Your task to perform on an android device: toggle show notifications on the lock screen Image 0: 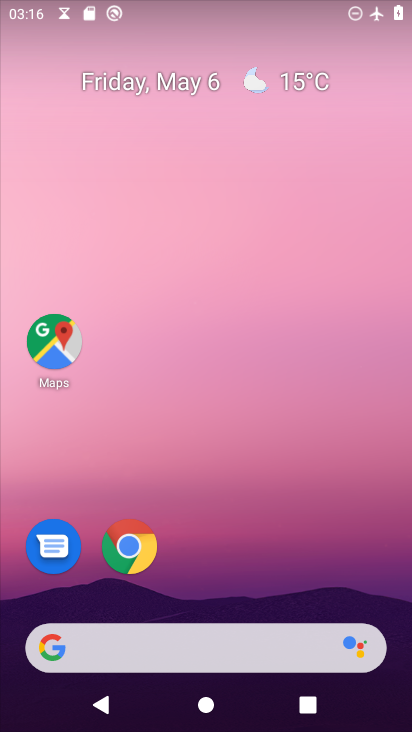
Step 0: drag from (229, 582) to (212, 127)
Your task to perform on an android device: toggle show notifications on the lock screen Image 1: 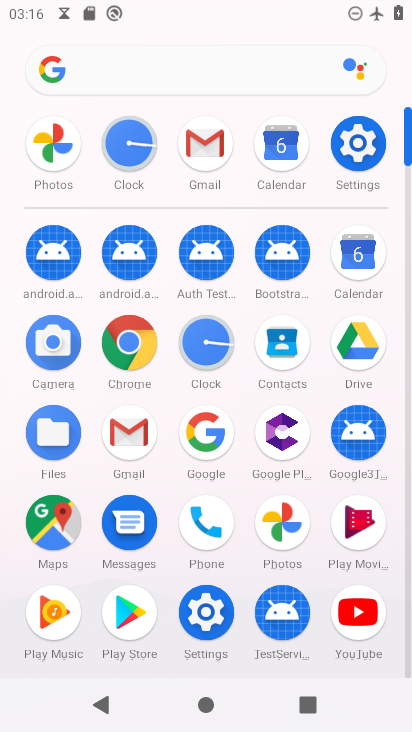
Step 1: click (357, 160)
Your task to perform on an android device: toggle show notifications on the lock screen Image 2: 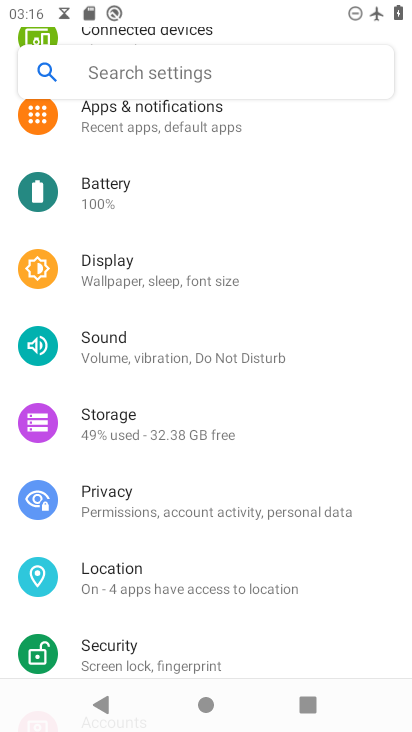
Step 2: click (144, 121)
Your task to perform on an android device: toggle show notifications on the lock screen Image 3: 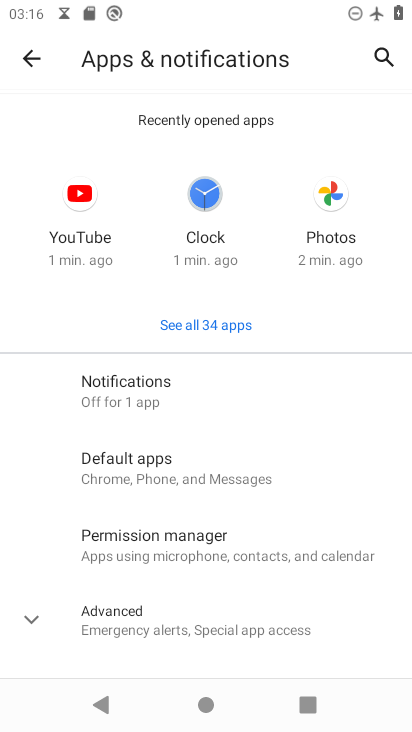
Step 3: click (135, 384)
Your task to perform on an android device: toggle show notifications on the lock screen Image 4: 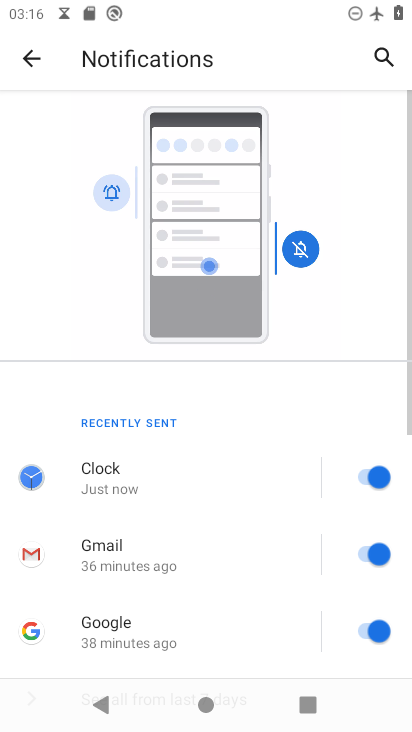
Step 4: drag from (245, 458) to (238, 254)
Your task to perform on an android device: toggle show notifications on the lock screen Image 5: 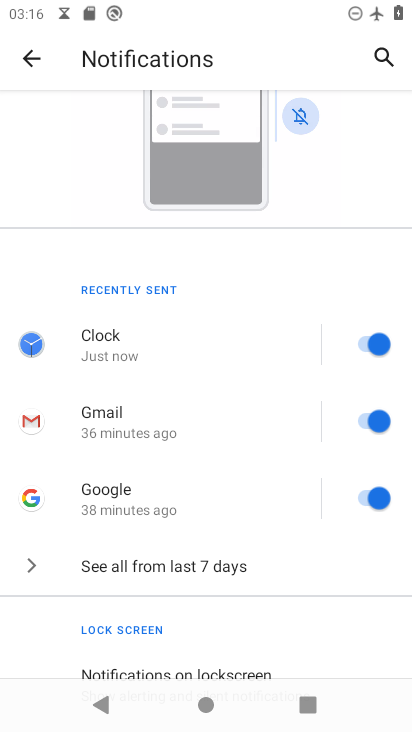
Step 5: click (206, 665)
Your task to perform on an android device: toggle show notifications on the lock screen Image 6: 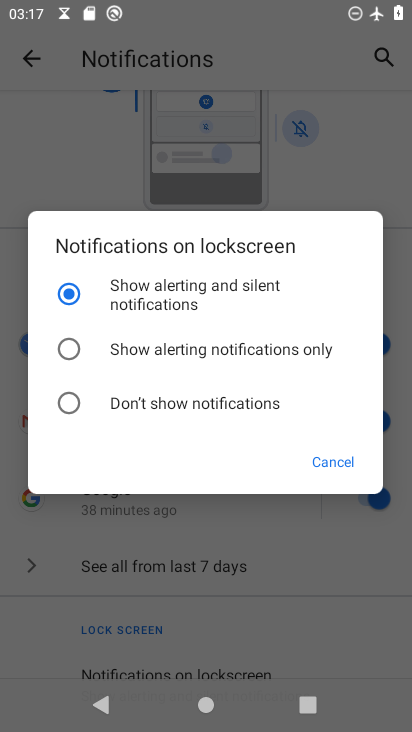
Step 6: click (77, 355)
Your task to perform on an android device: toggle show notifications on the lock screen Image 7: 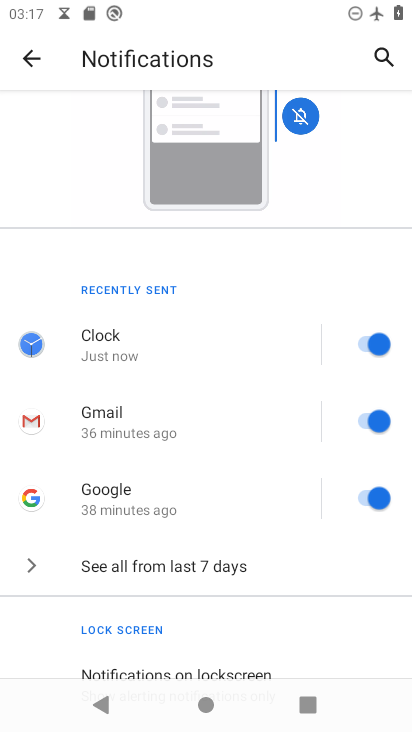
Step 7: task complete